Your task to perform on an android device: manage bookmarks in the chrome app Image 0: 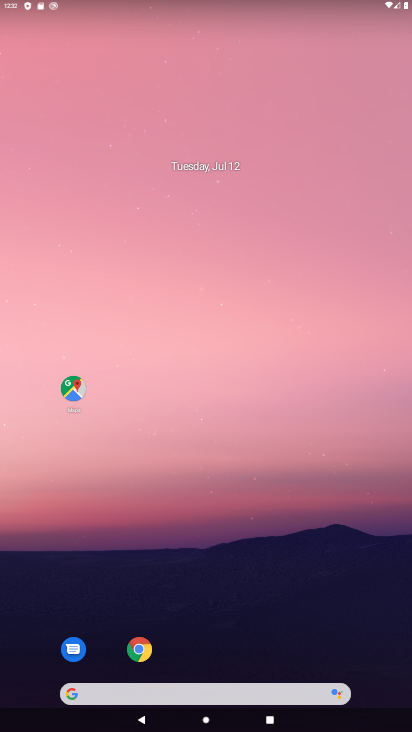
Step 0: click (244, 654)
Your task to perform on an android device: manage bookmarks in the chrome app Image 1: 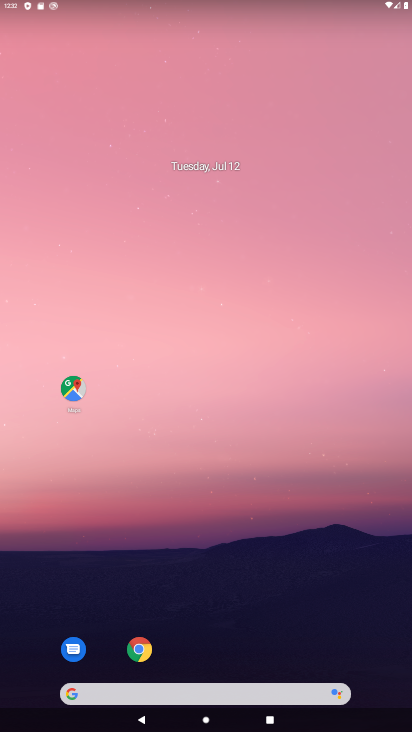
Step 1: click (145, 644)
Your task to perform on an android device: manage bookmarks in the chrome app Image 2: 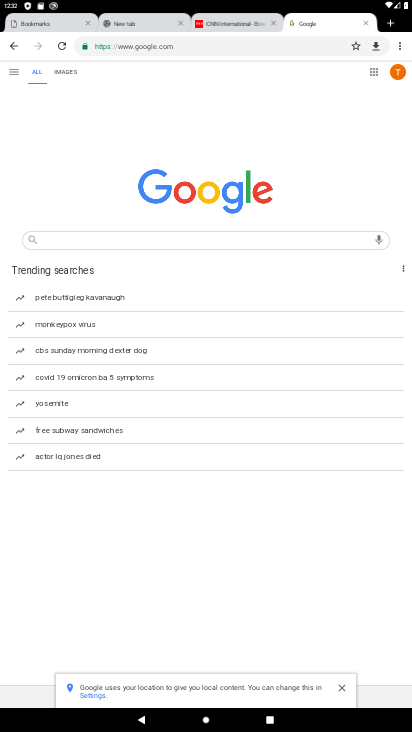
Step 2: click (393, 77)
Your task to perform on an android device: manage bookmarks in the chrome app Image 3: 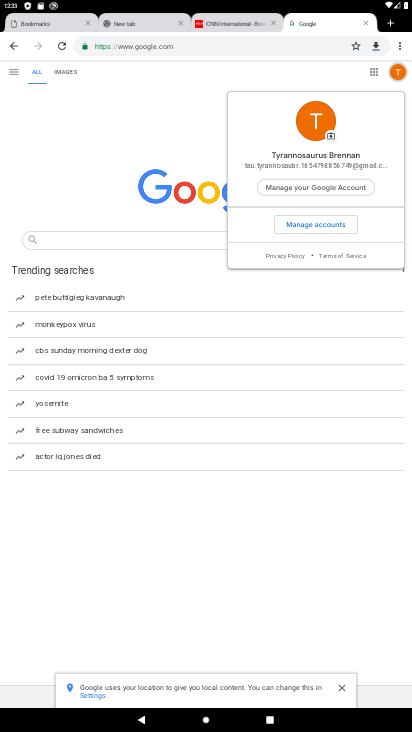
Step 3: click (106, 209)
Your task to perform on an android device: manage bookmarks in the chrome app Image 4: 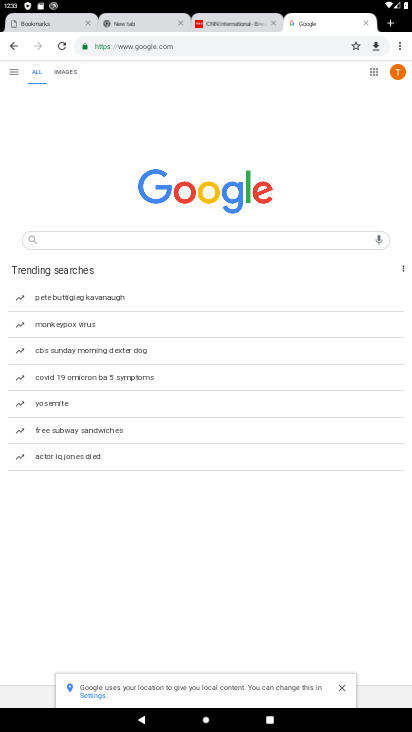
Step 4: task complete